Your task to perform on an android device: Open Google Maps and go to "Timeline" Image 0: 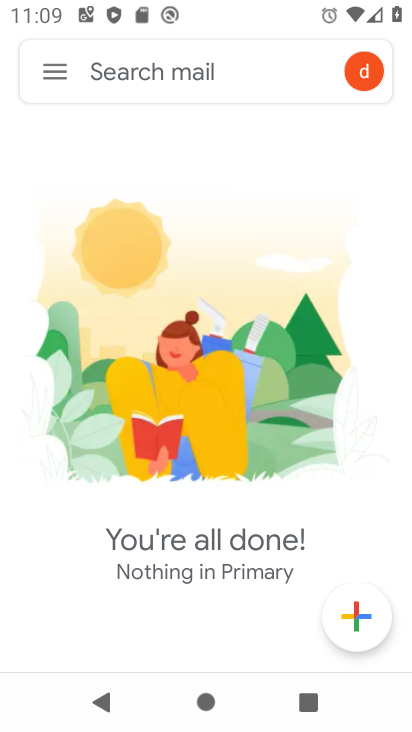
Step 0: press home button
Your task to perform on an android device: Open Google Maps and go to "Timeline" Image 1: 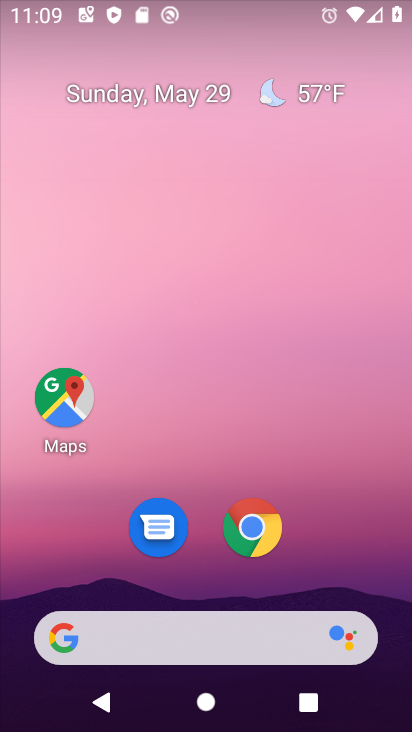
Step 1: click (46, 410)
Your task to perform on an android device: Open Google Maps and go to "Timeline" Image 2: 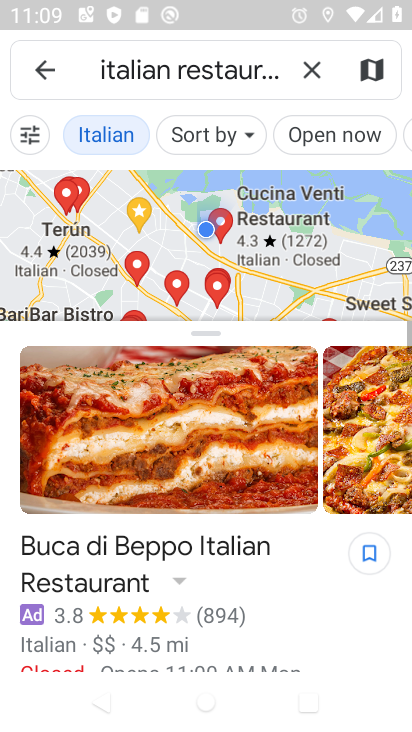
Step 2: click (43, 64)
Your task to perform on an android device: Open Google Maps and go to "Timeline" Image 3: 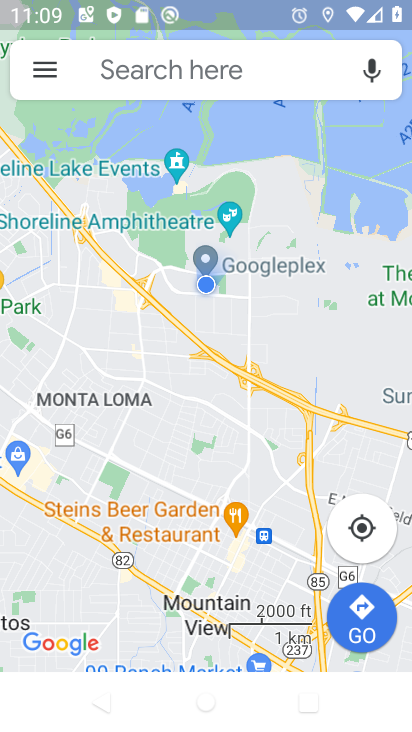
Step 3: click (43, 64)
Your task to perform on an android device: Open Google Maps and go to "Timeline" Image 4: 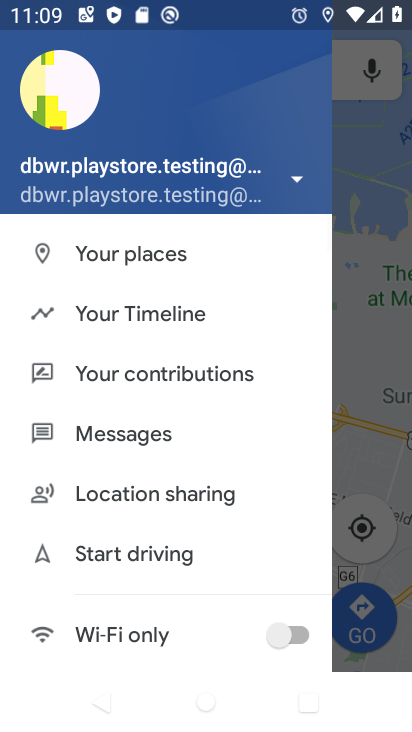
Step 4: click (177, 316)
Your task to perform on an android device: Open Google Maps and go to "Timeline" Image 5: 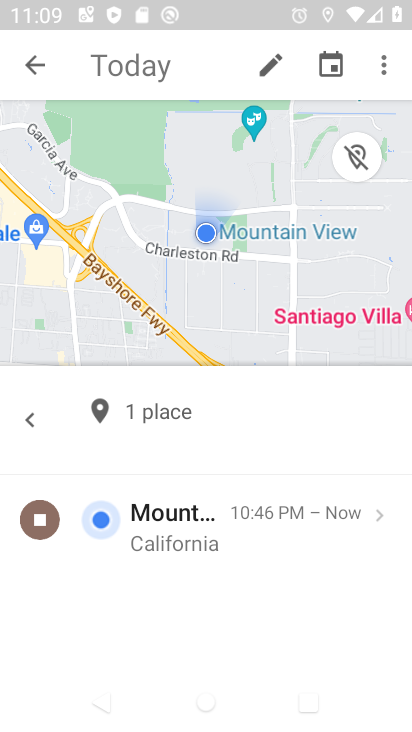
Step 5: task complete